Your task to perform on an android device: Go to Google maps Image 0: 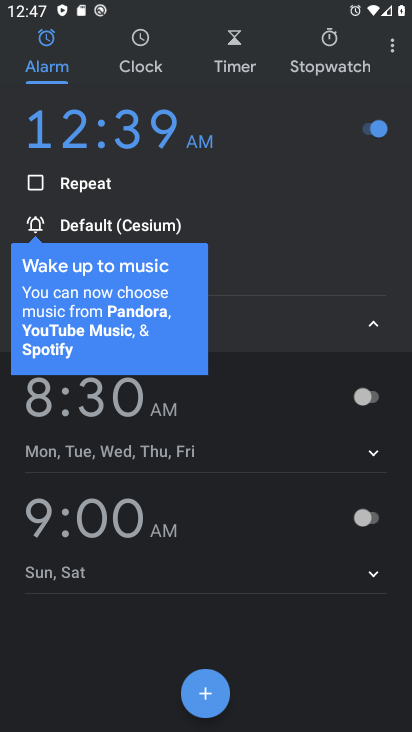
Step 0: press home button
Your task to perform on an android device: Go to Google maps Image 1: 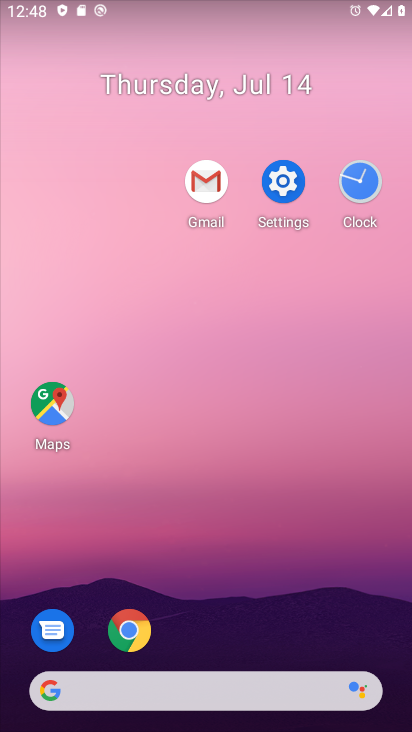
Step 1: click (66, 398)
Your task to perform on an android device: Go to Google maps Image 2: 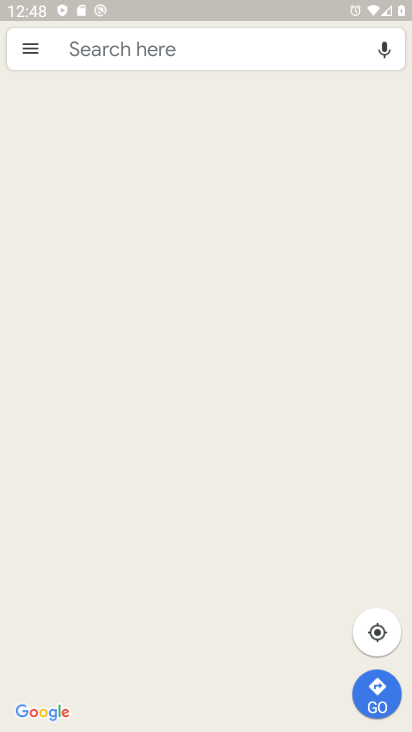
Step 2: task complete